Your task to perform on an android device: How much does the HisenseTV cost? Image 0: 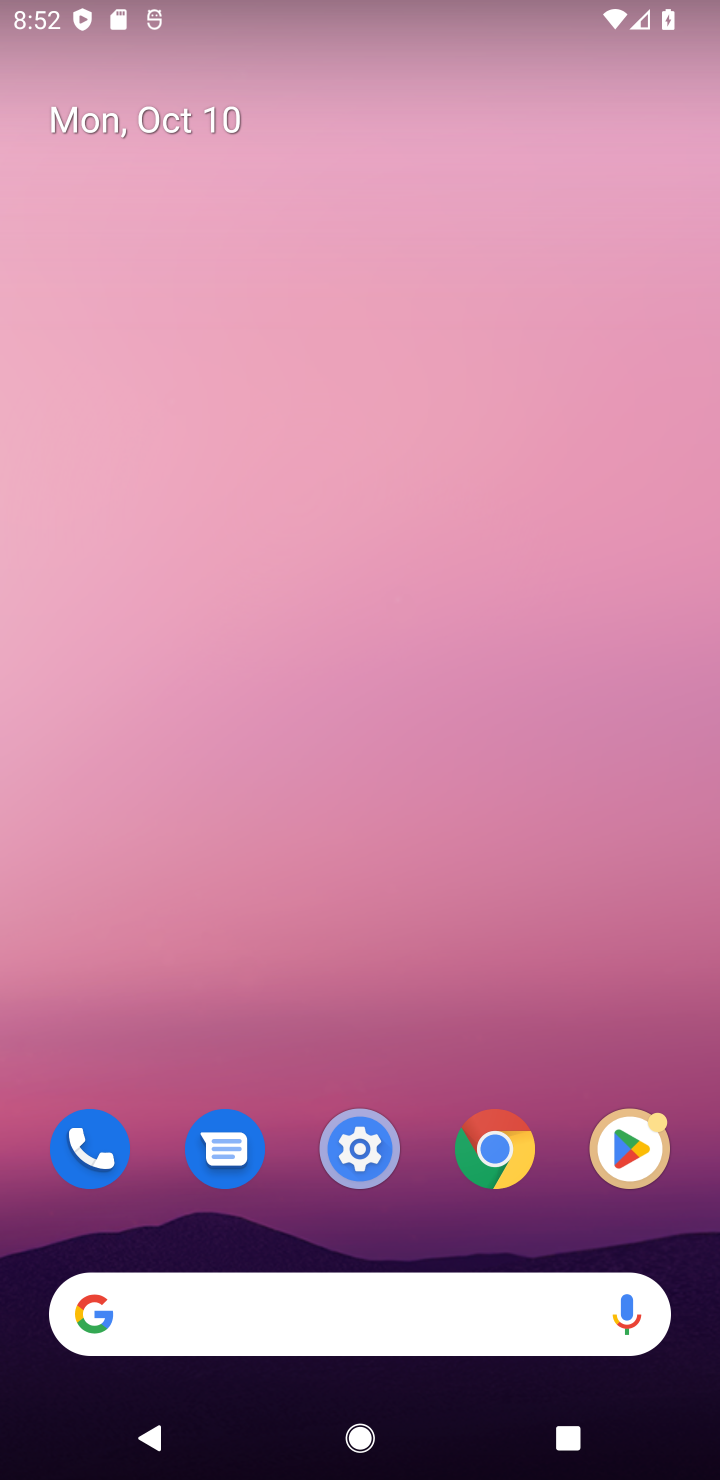
Step 0: click (315, 1294)
Your task to perform on an android device: How much does the HisenseTV cost? Image 1: 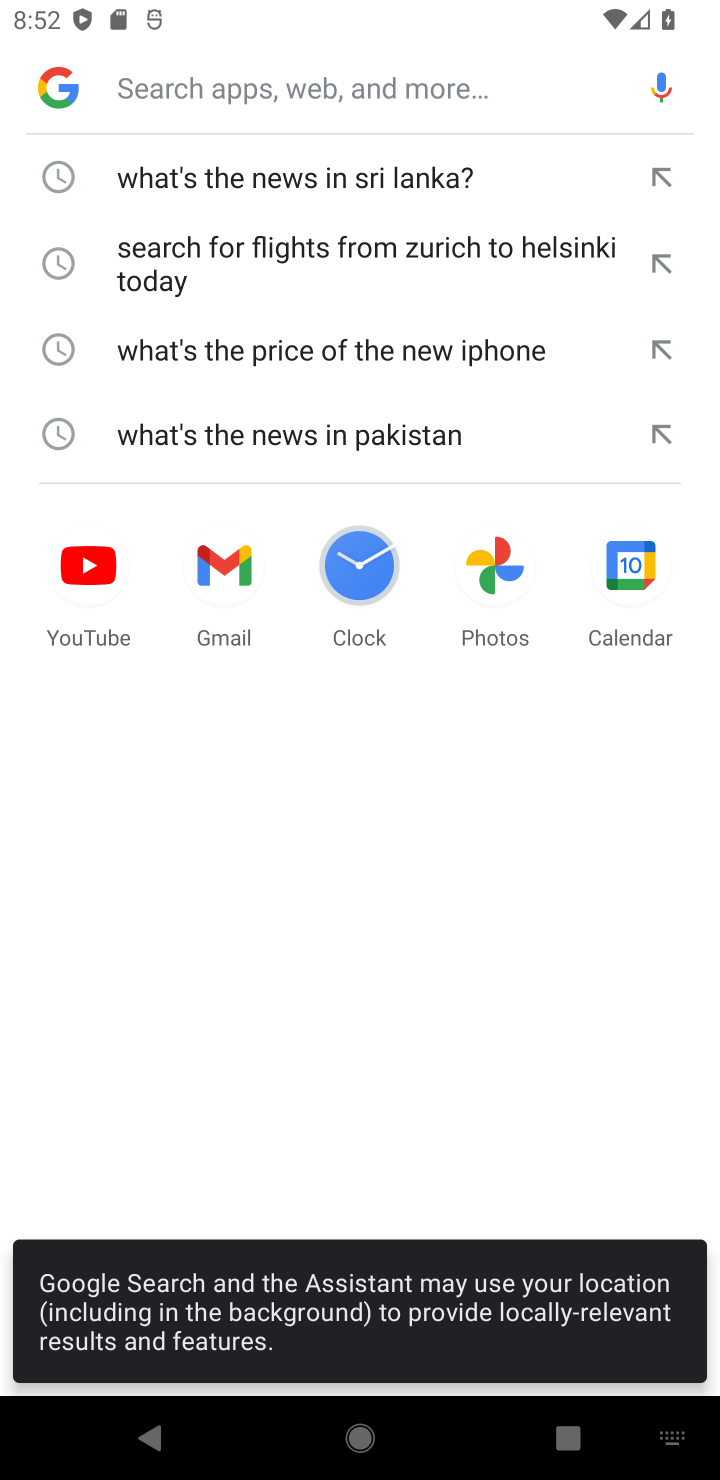
Step 1: type "How much does the HisenseTV cost?"
Your task to perform on an android device: How much does the HisenseTV cost? Image 2: 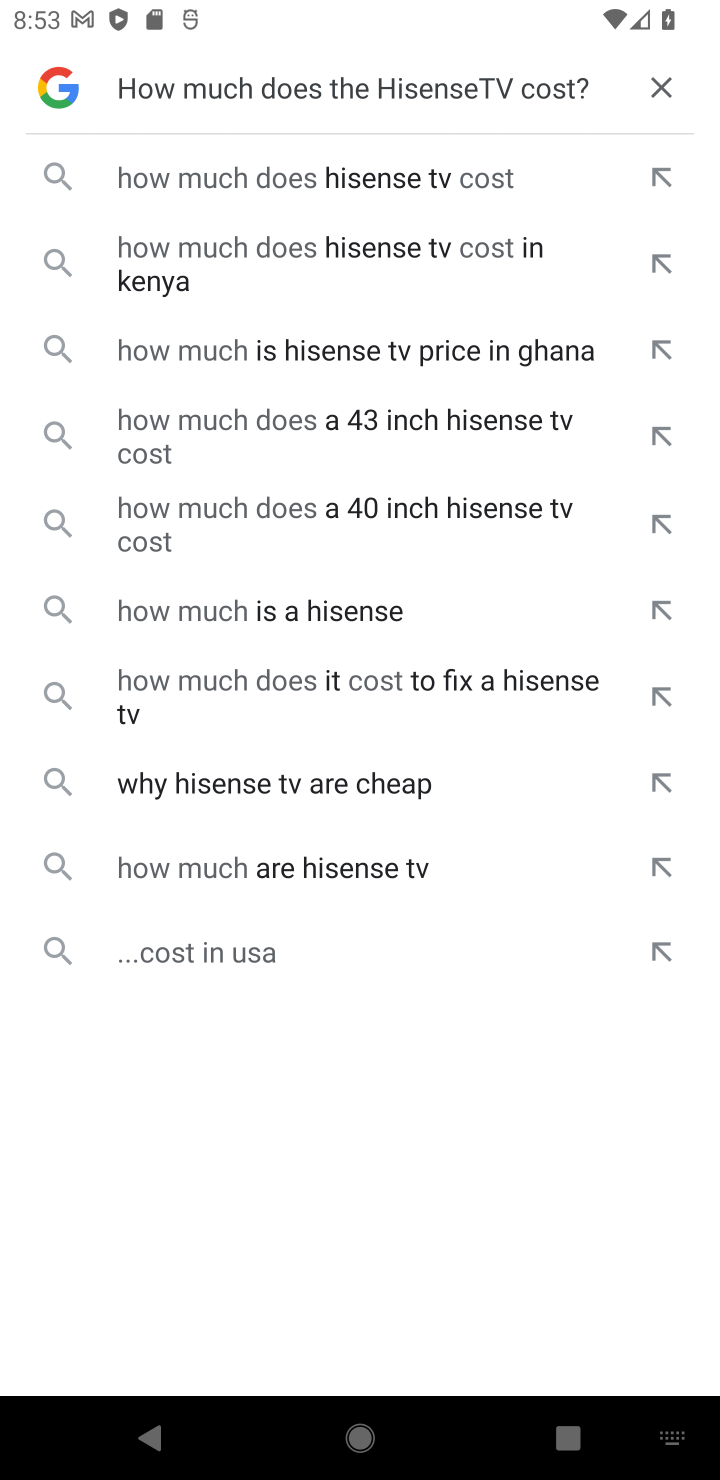
Step 2: click (394, 211)
Your task to perform on an android device: How much does the HisenseTV cost? Image 3: 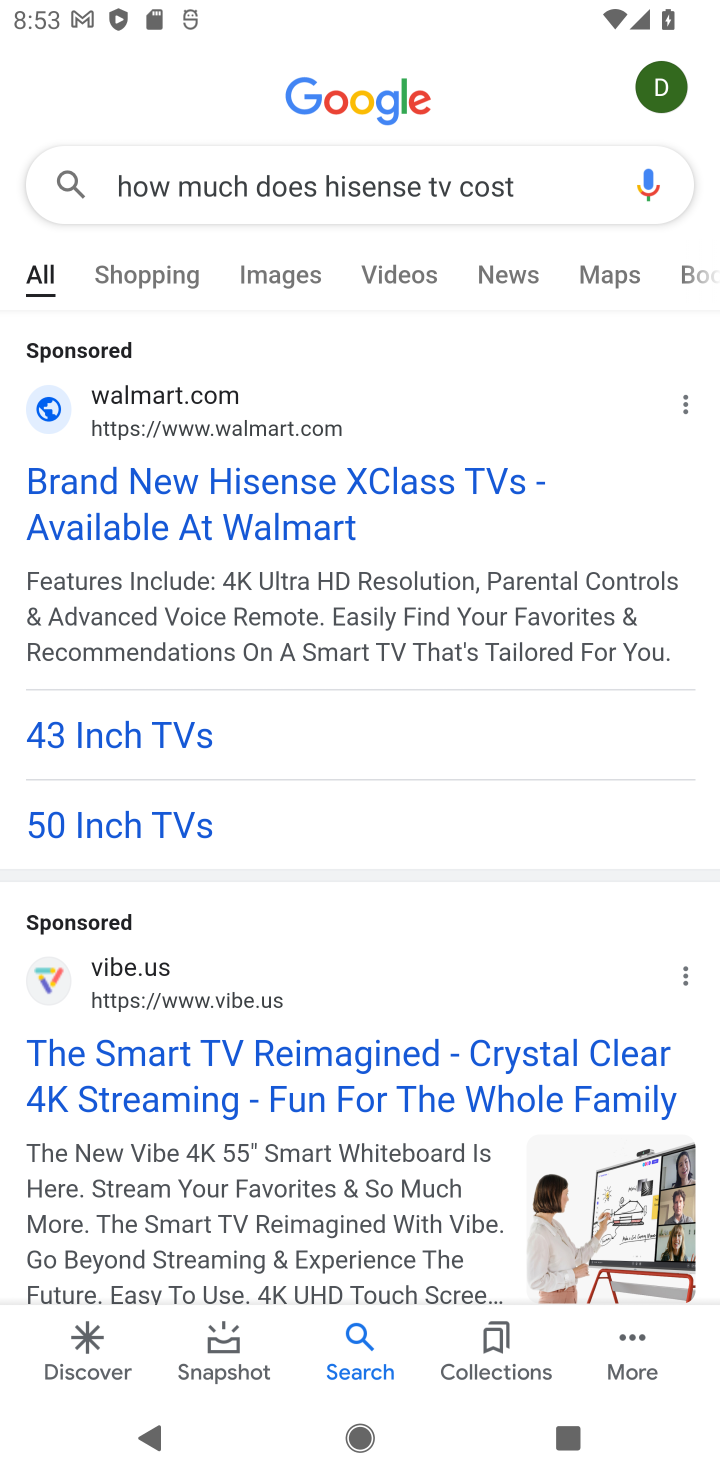
Step 3: click (305, 502)
Your task to perform on an android device: How much does the HisenseTV cost? Image 4: 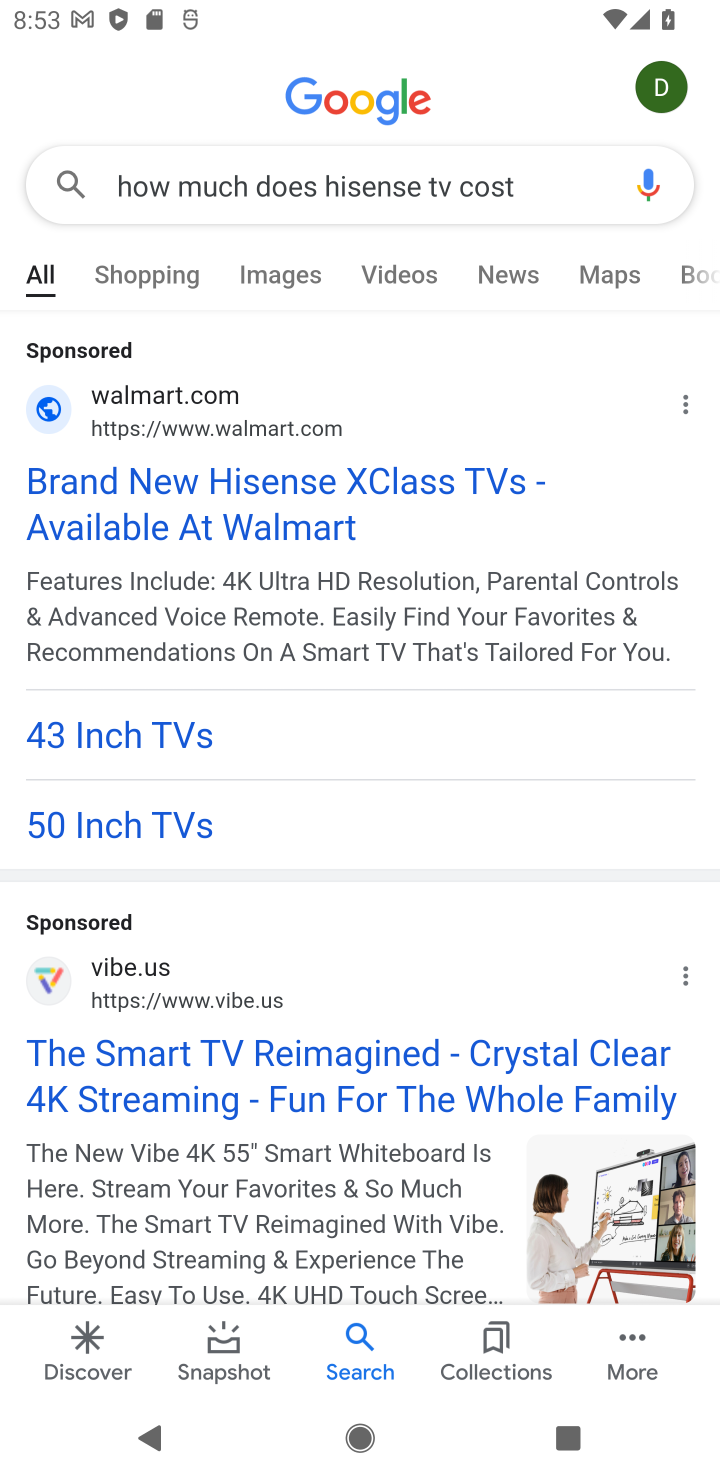
Step 4: task complete